Your task to perform on an android device: change notifications settings Image 0: 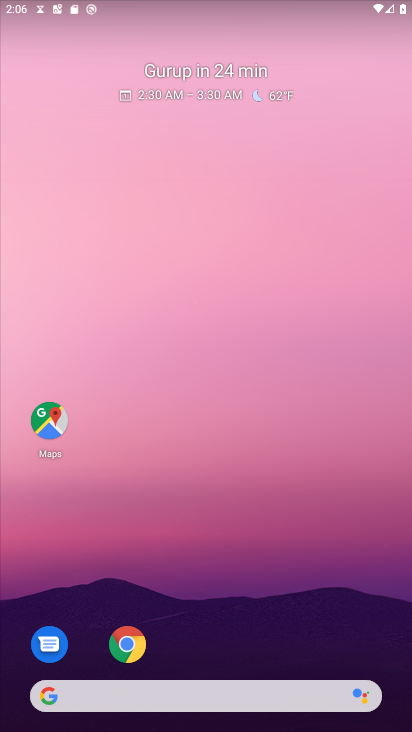
Step 0: drag from (207, 719) to (236, 229)
Your task to perform on an android device: change notifications settings Image 1: 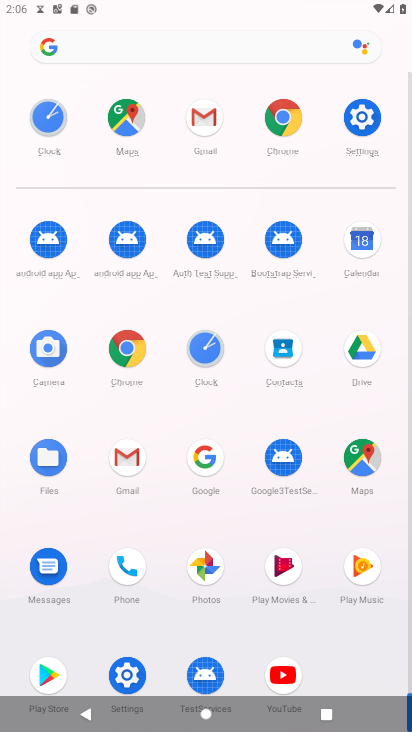
Step 1: click (121, 676)
Your task to perform on an android device: change notifications settings Image 2: 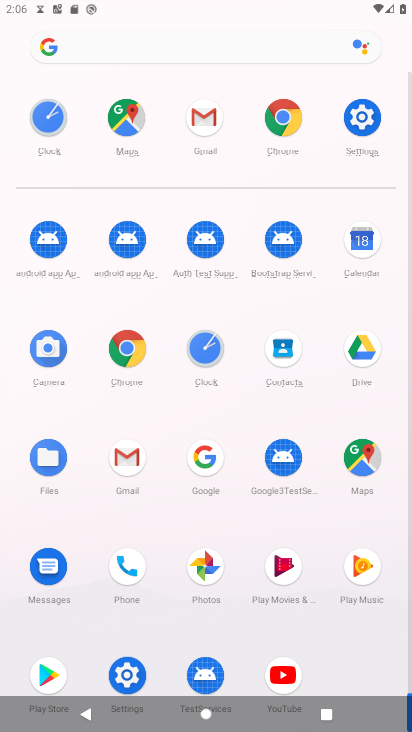
Step 2: click (121, 676)
Your task to perform on an android device: change notifications settings Image 3: 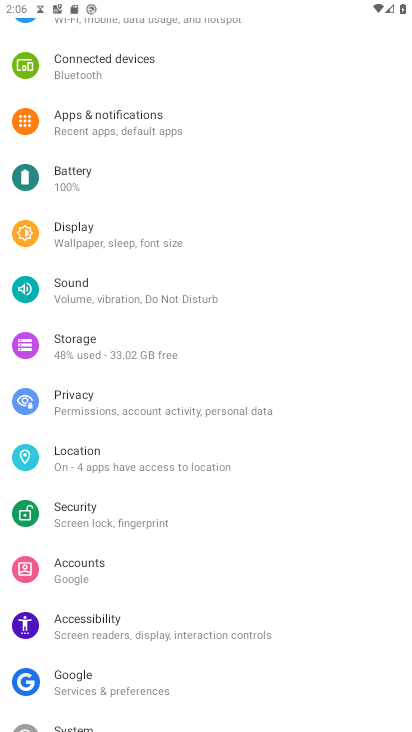
Step 3: click (132, 113)
Your task to perform on an android device: change notifications settings Image 4: 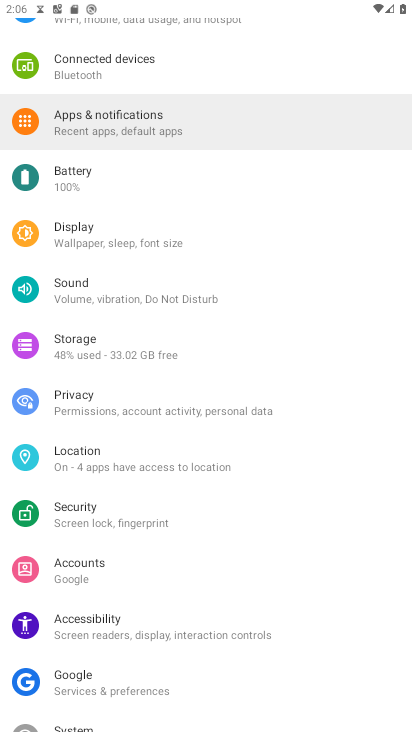
Step 4: click (128, 134)
Your task to perform on an android device: change notifications settings Image 5: 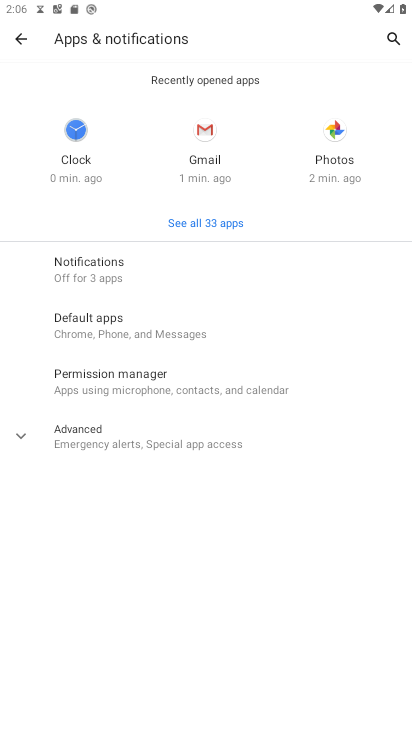
Step 5: click (101, 277)
Your task to perform on an android device: change notifications settings Image 6: 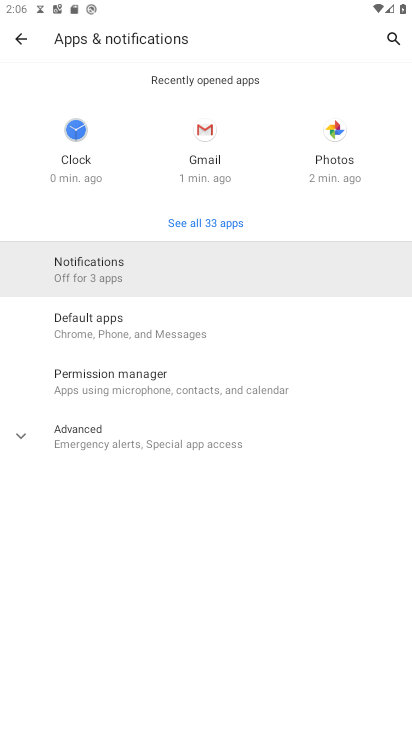
Step 6: click (101, 276)
Your task to perform on an android device: change notifications settings Image 7: 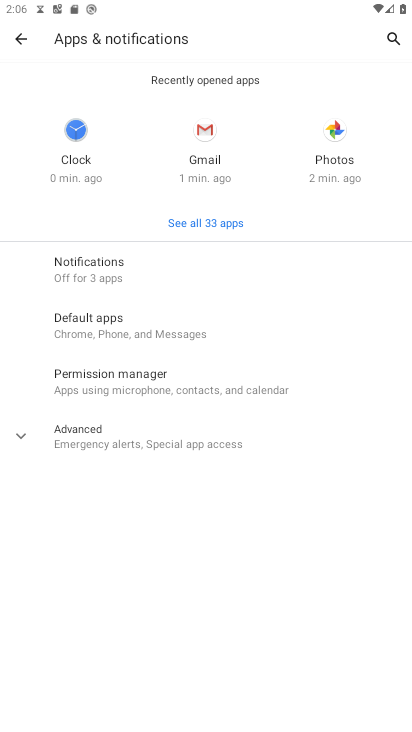
Step 7: click (101, 275)
Your task to perform on an android device: change notifications settings Image 8: 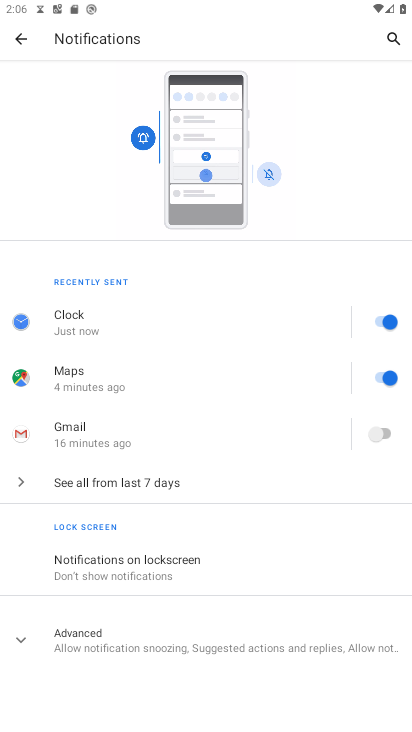
Step 8: click (392, 318)
Your task to perform on an android device: change notifications settings Image 9: 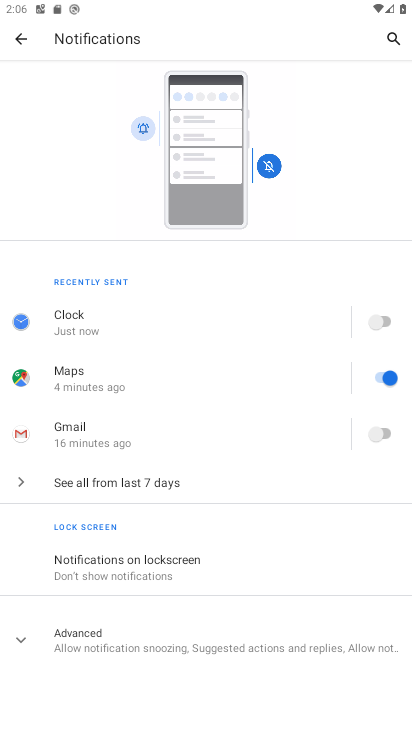
Step 9: click (389, 377)
Your task to perform on an android device: change notifications settings Image 10: 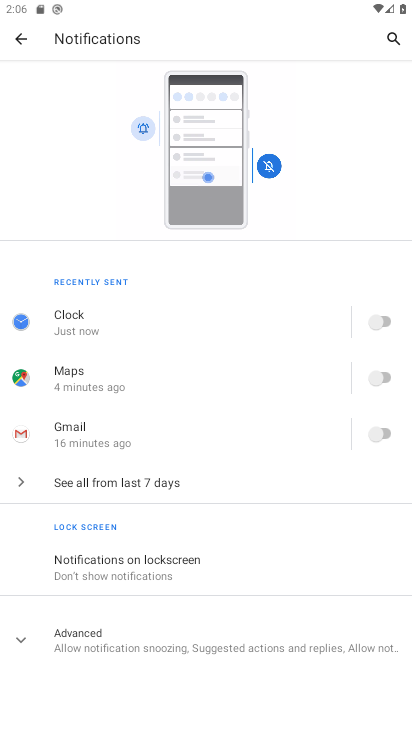
Step 10: click (378, 427)
Your task to perform on an android device: change notifications settings Image 11: 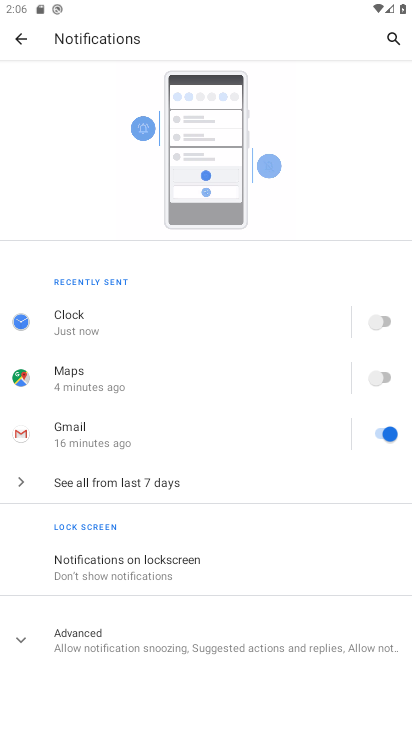
Step 11: task complete